Your task to perform on an android device: check storage Image 0: 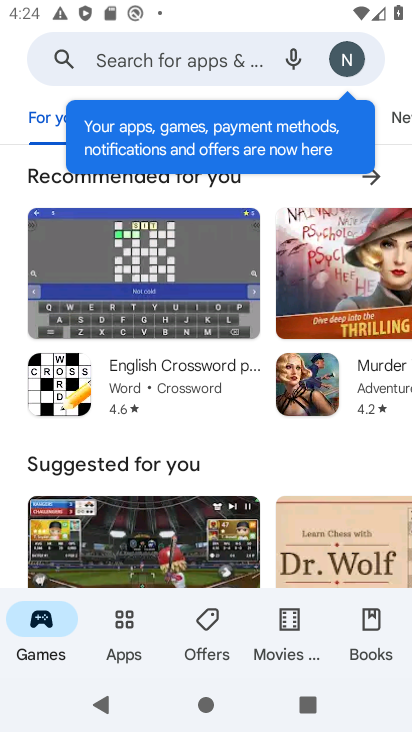
Step 0: press back button
Your task to perform on an android device: check storage Image 1: 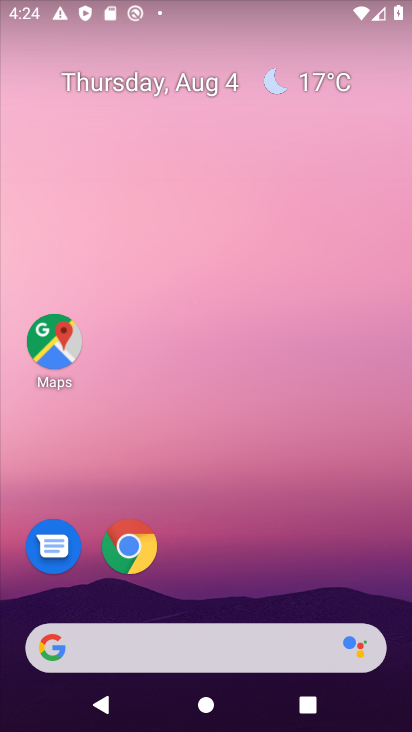
Step 1: drag from (189, 565) to (227, 9)
Your task to perform on an android device: check storage Image 2: 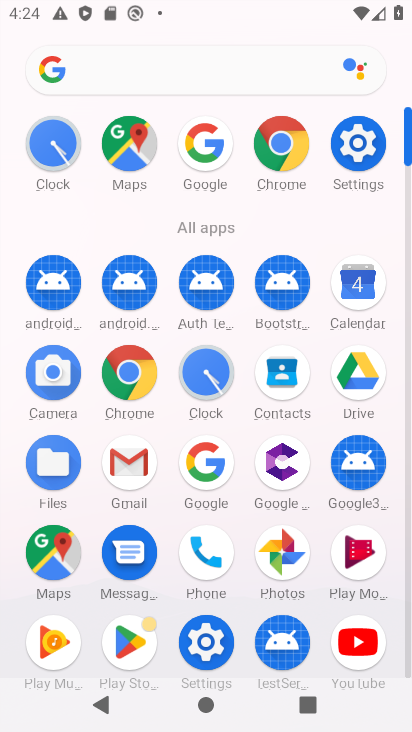
Step 2: click (359, 148)
Your task to perform on an android device: check storage Image 3: 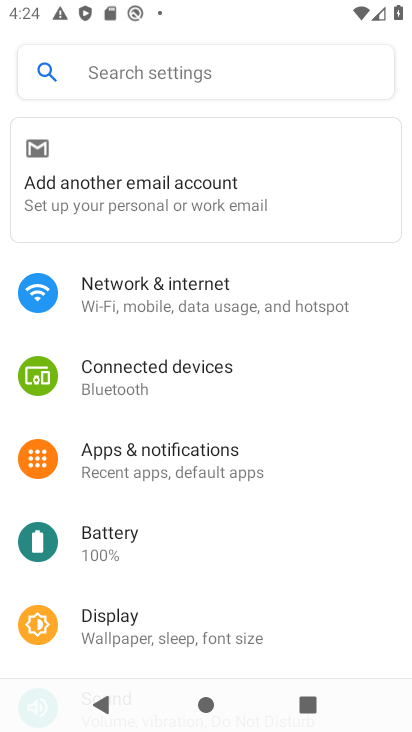
Step 3: drag from (142, 578) to (359, 18)
Your task to perform on an android device: check storage Image 4: 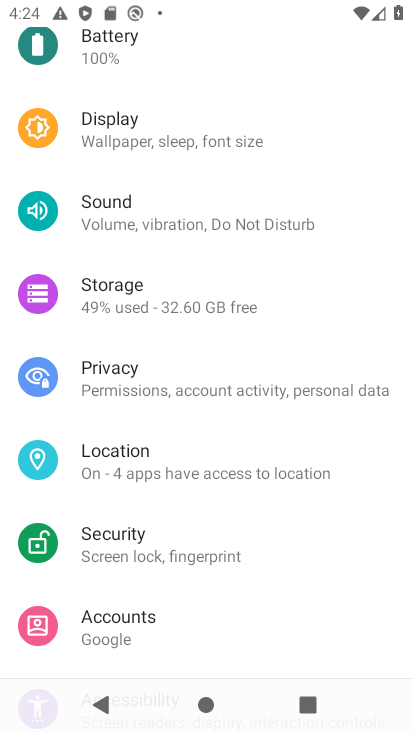
Step 4: click (94, 674)
Your task to perform on an android device: check storage Image 5: 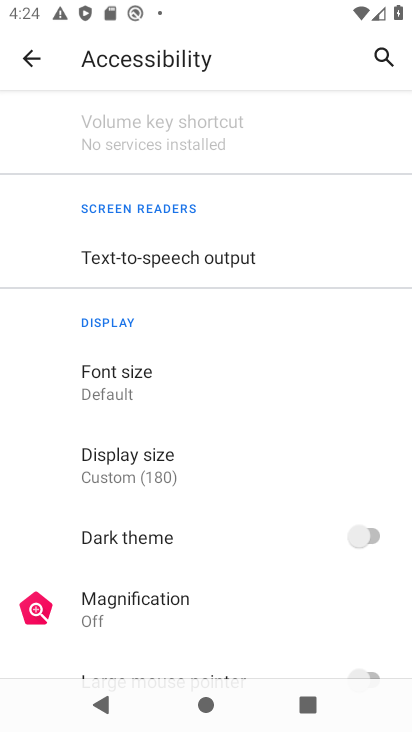
Step 5: press back button
Your task to perform on an android device: check storage Image 6: 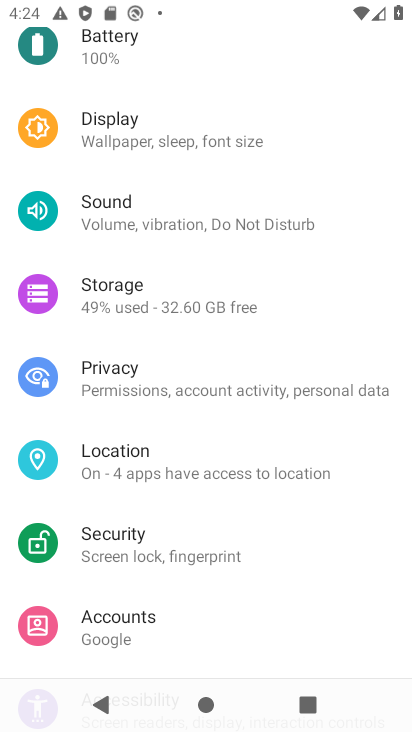
Step 6: drag from (171, 569) to (233, 251)
Your task to perform on an android device: check storage Image 7: 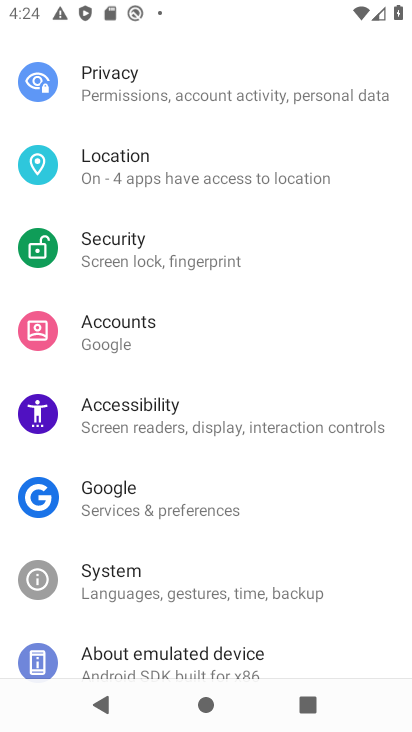
Step 7: drag from (184, 174) to (108, 636)
Your task to perform on an android device: check storage Image 8: 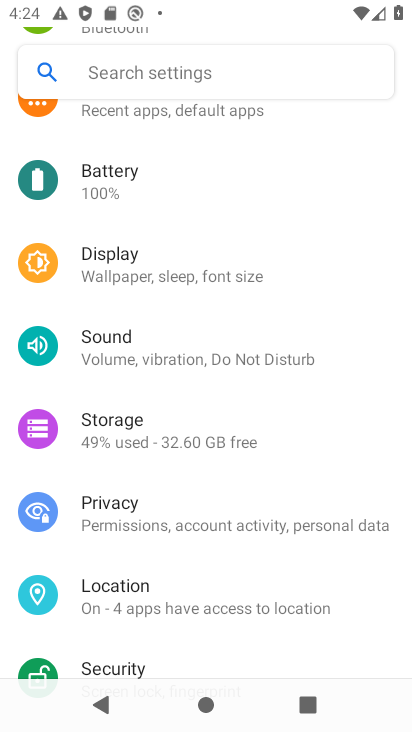
Step 8: drag from (200, 221) to (171, 379)
Your task to perform on an android device: check storage Image 9: 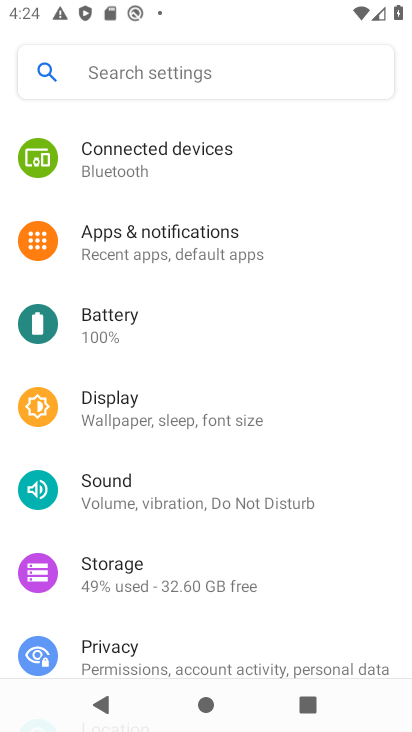
Step 9: click (87, 563)
Your task to perform on an android device: check storage Image 10: 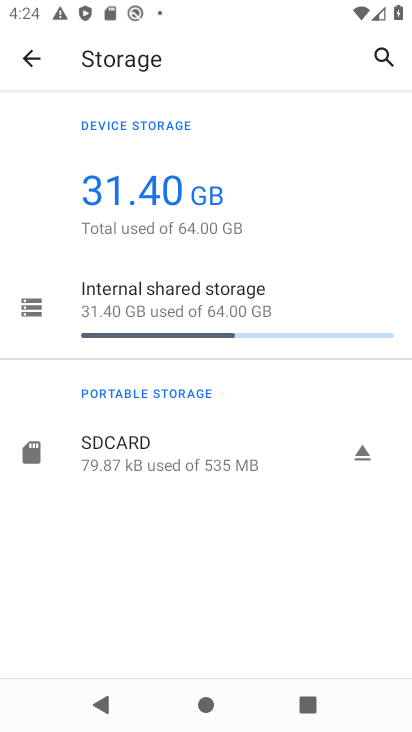
Step 10: task complete